Your task to perform on an android device: Search for alienware aurora on bestbuy.com, select the first entry, add it to the cart, then select checkout. Image 0: 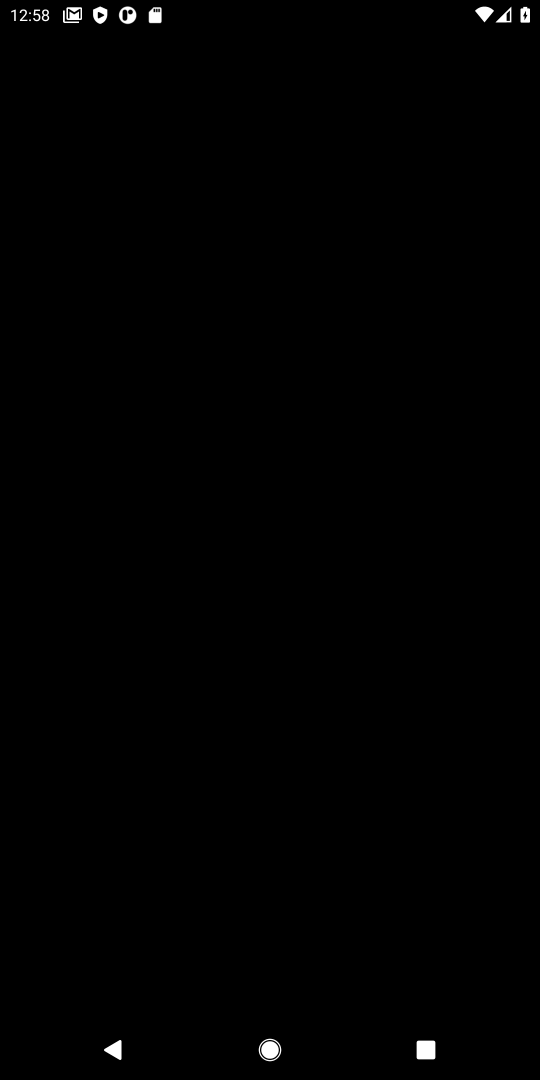
Step 0: press home button
Your task to perform on an android device: Search for alienware aurora on bestbuy.com, select the first entry, add it to the cart, then select checkout. Image 1: 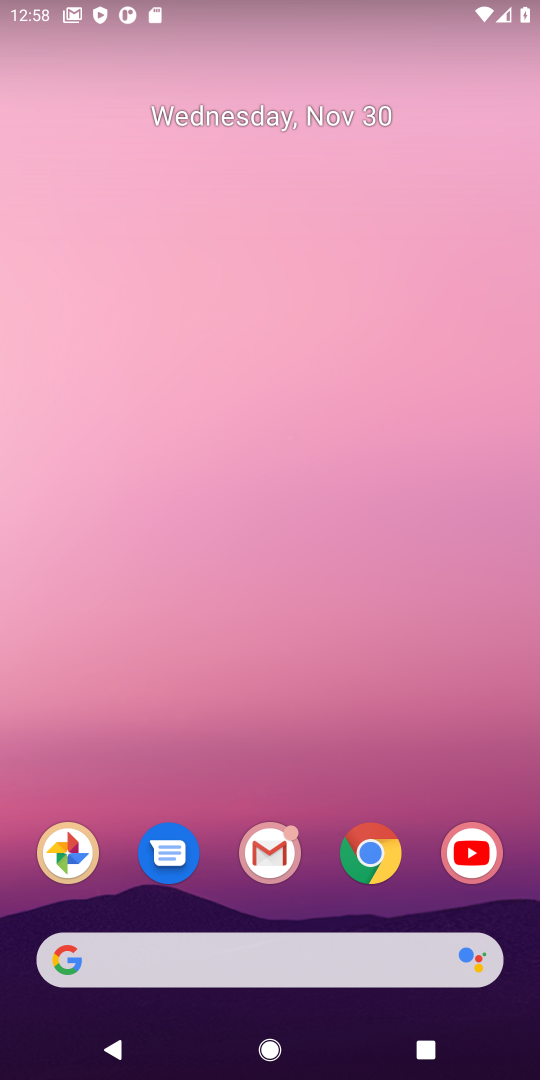
Step 1: click (361, 863)
Your task to perform on an android device: Search for alienware aurora on bestbuy.com, select the first entry, add it to the cart, then select checkout. Image 2: 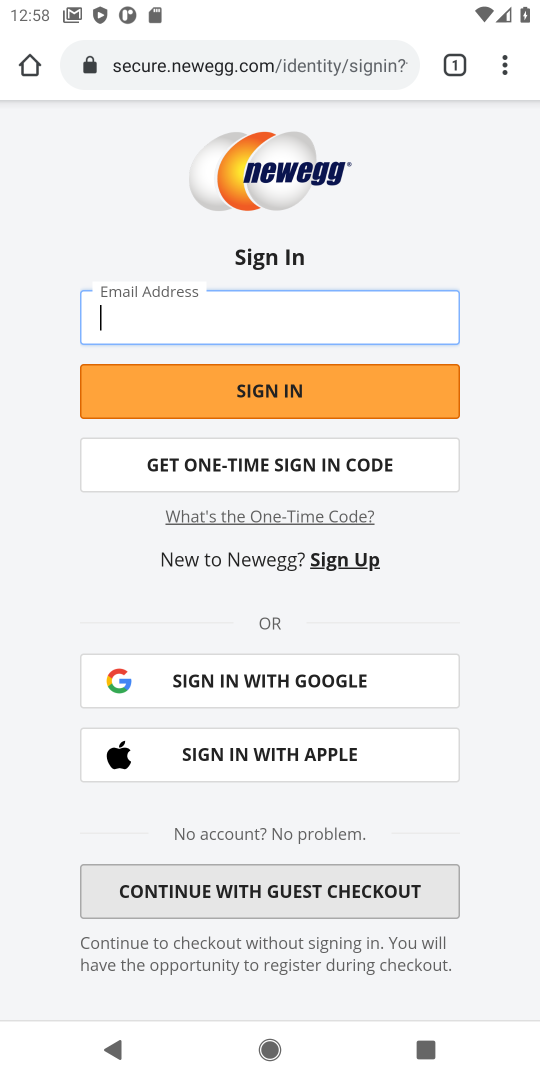
Step 2: click (227, 71)
Your task to perform on an android device: Search for alienware aurora on bestbuy.com, select the first entry, add it to the cart, then select checkout. Image 3: 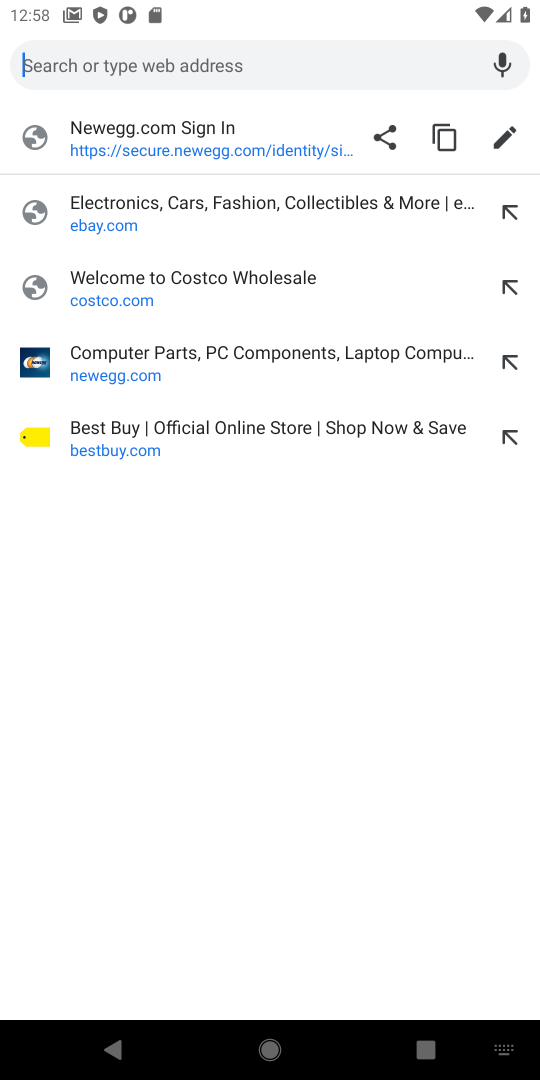
Step 3: click (91, 447)
Your task to perform on an android device: Search for alienware aurora on bestbuy.com, select the first entry, add it to the cart, then select checkout. Image 4: 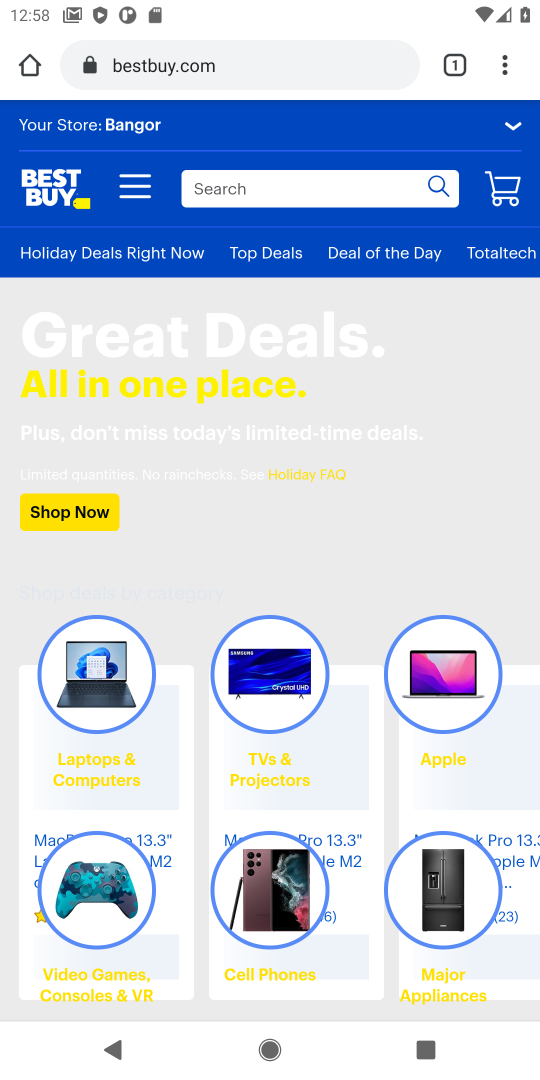
Step 4: click (247, 201)
Your task to perform on an android device: Search for alienware aurora on bestbuy.com, select the first entry, add it to the cart, then select checkout. Image 5: 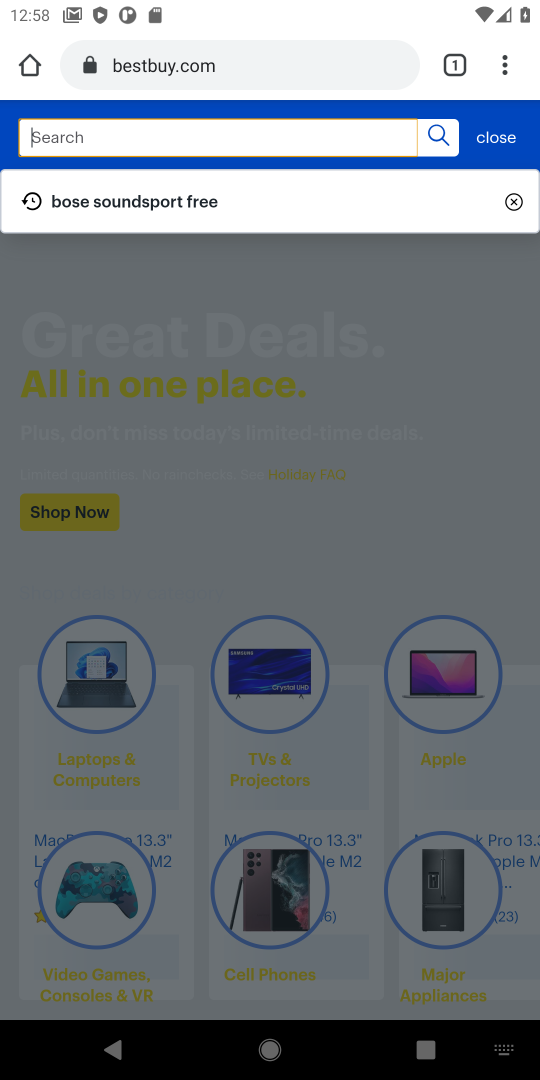
Step 5: type "alienware aurora"
Your task to perform on an android device: Search for alienware aurora on bestbuy.com, select the first entry, add it to the cart, then select checkout. Image 6: 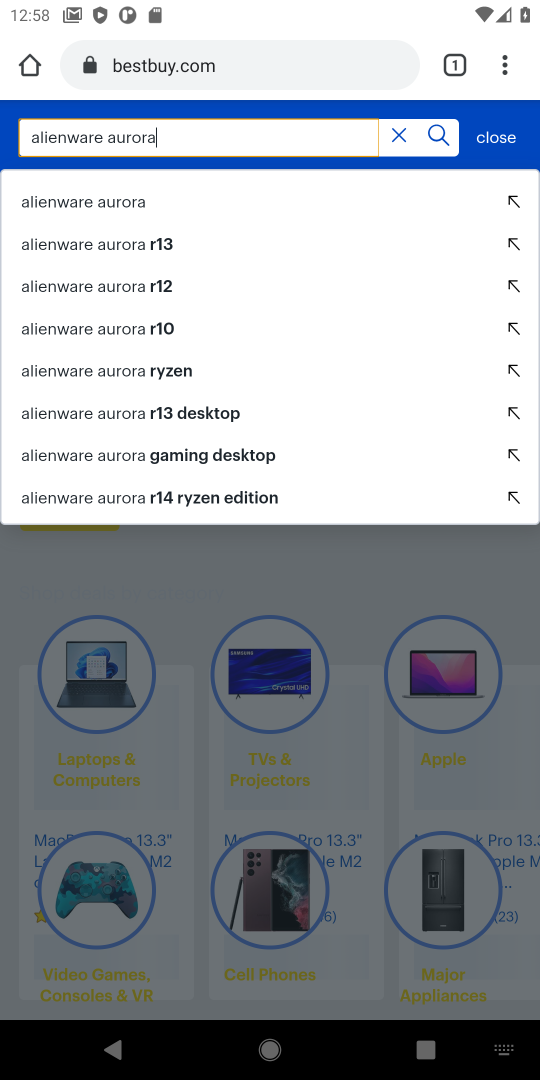
Step 6: click (44, 205)
Your task to perform on an android device: Search for alienware aurora on bestbuy.com, select the first entry, add it to the cart, then select checkout. Image 7: 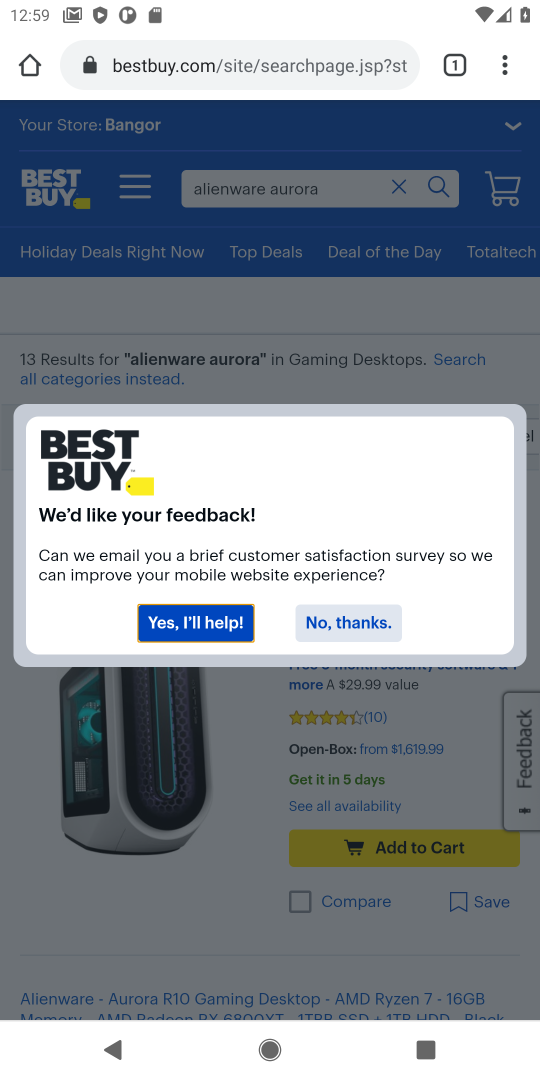
Step 7: click (326, 618)
Your task to perform on an android device: Search for alienware aurora on bestbuy.com, select the first entry, add it to the cart, then select checkout. Image 8: 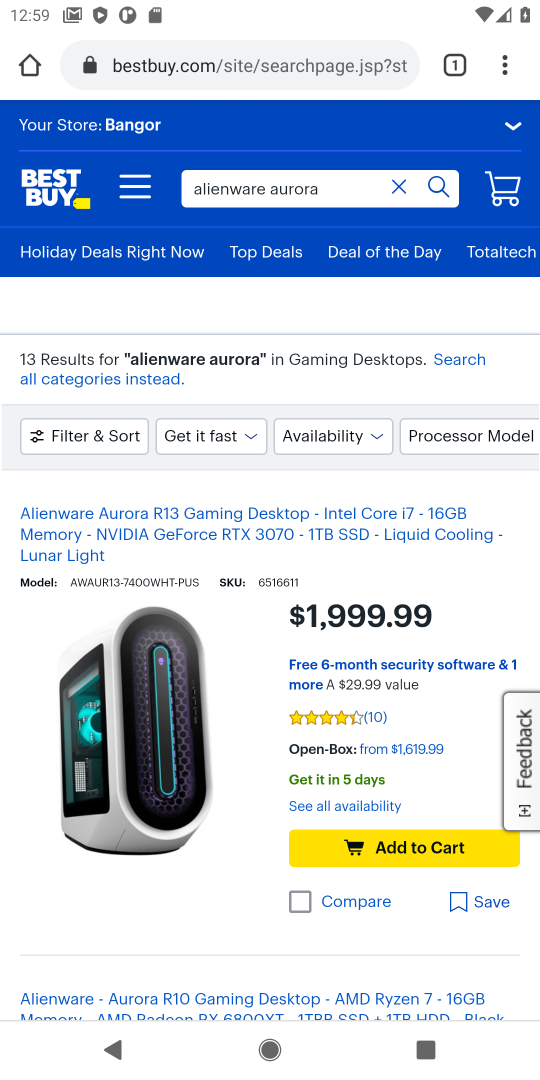
Step 8: click (388, 845)
Your task to perform on an android device: Search for alienware aurora on bestbuy.com, select the first entry, add it to the cart, then select checkout. Image 9: 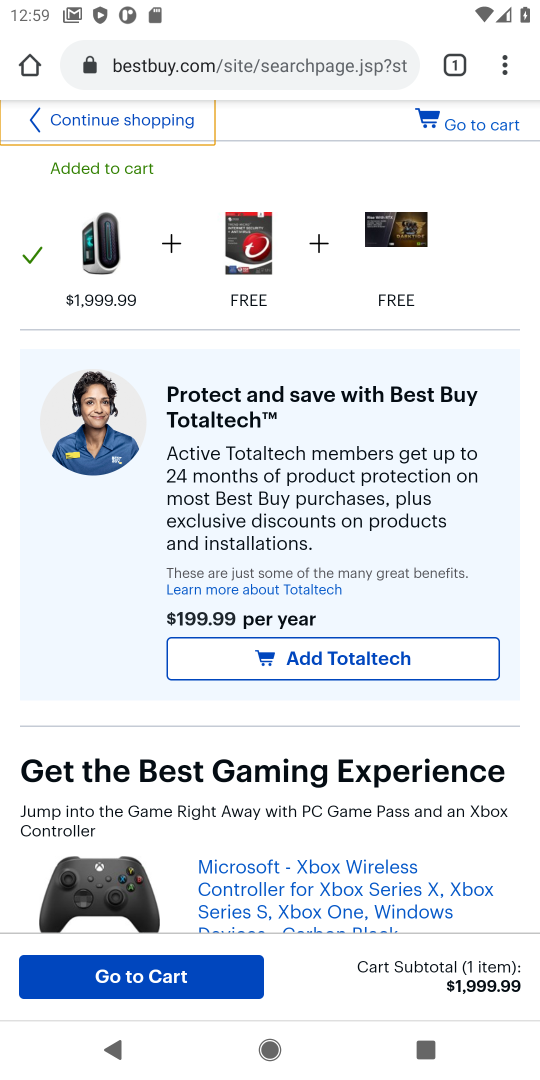
Step 9: click (487, 128)
Your task to perform on an android device: Search for alienware aurora on bestbuy.com, select the first entry, add it to the cart, then select checkout. Image 10: 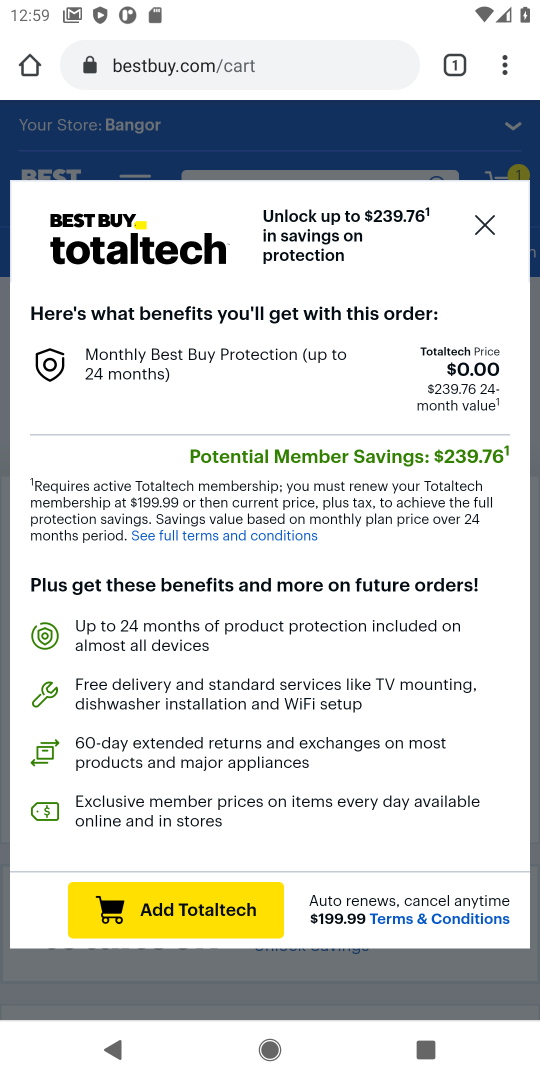
Step 10: click (482, 225)
Your task to perform on an android device: Search for alienware aurora on bestbuy.com, select the first entry, add it to the cart, then select checkout. Image 11: 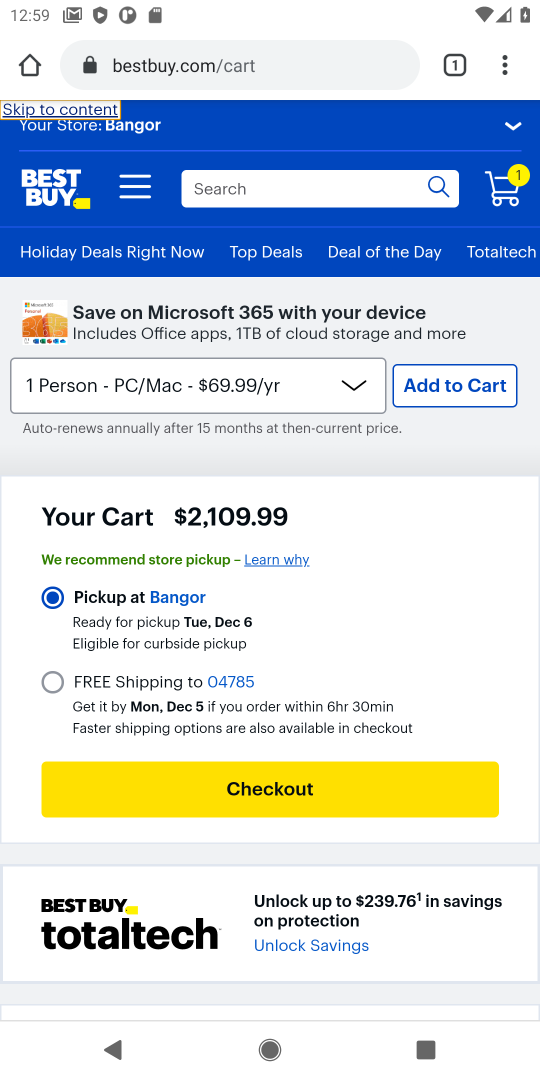
Step 11: click (240, 785)
Your task to perform on an android device: Search for alienware aurora on bestbuy.com, select the first entry, add it to the cart, then select checkout. Image 12: 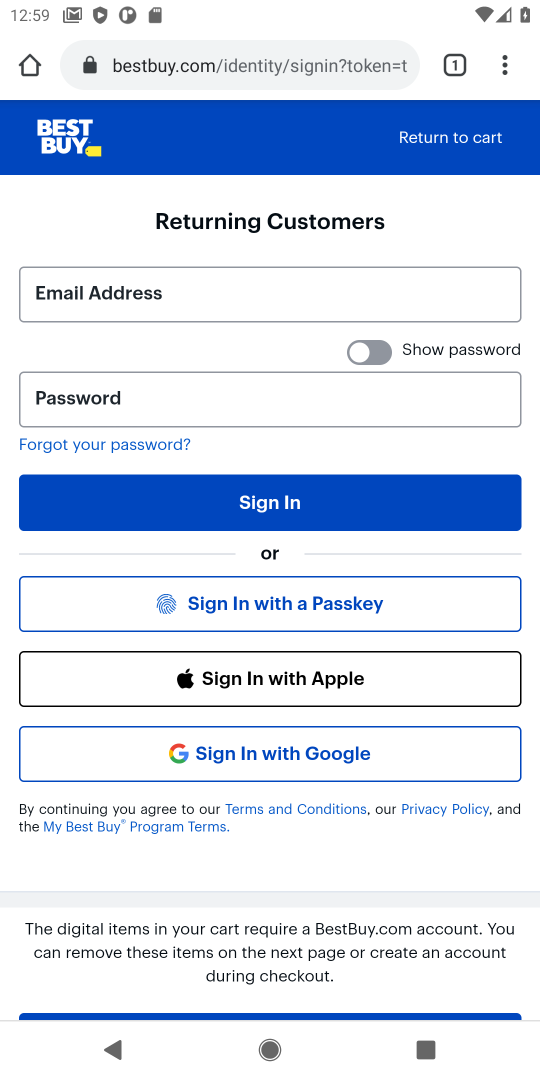
Step 12: task complete